Your task to perform on an android device: Show me a list of home improvement items on the Home Depot website. Image 0: 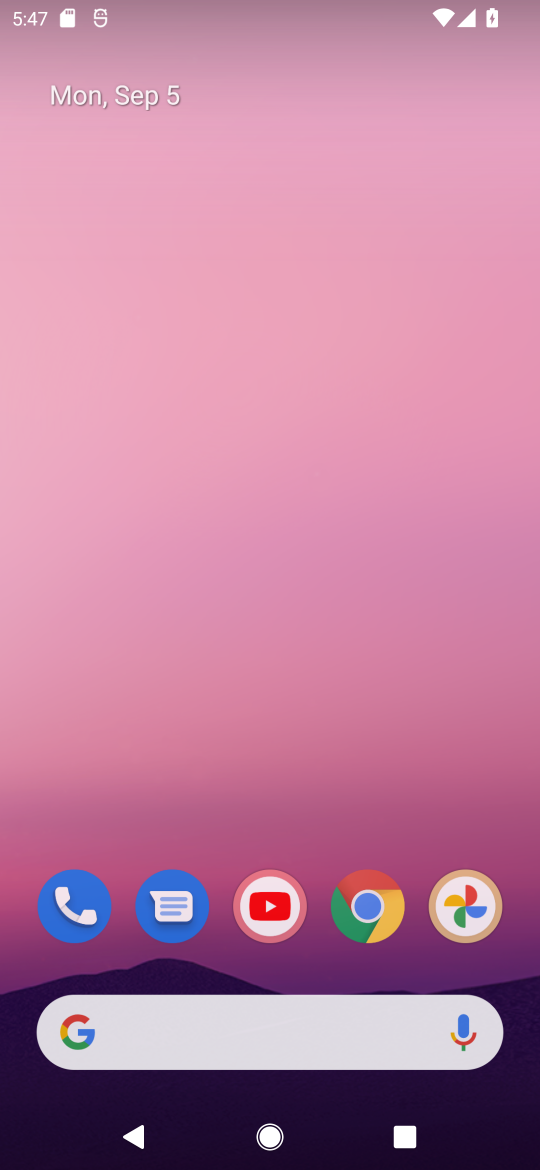
Step 0: press home button
Your task to perform on an android device: Show me a list of home improvement items on the Home Depot website. Image 1: 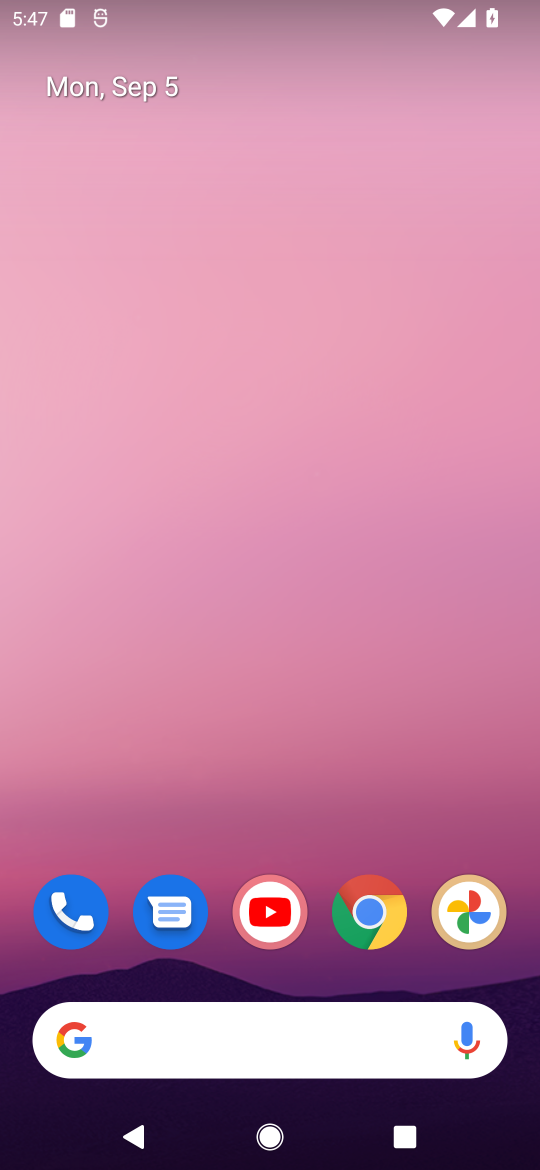
Step 1: click (362, 906)
Your task to perform on an android device: Show me a list of home improvement items on the Home Depot website. Image 2: 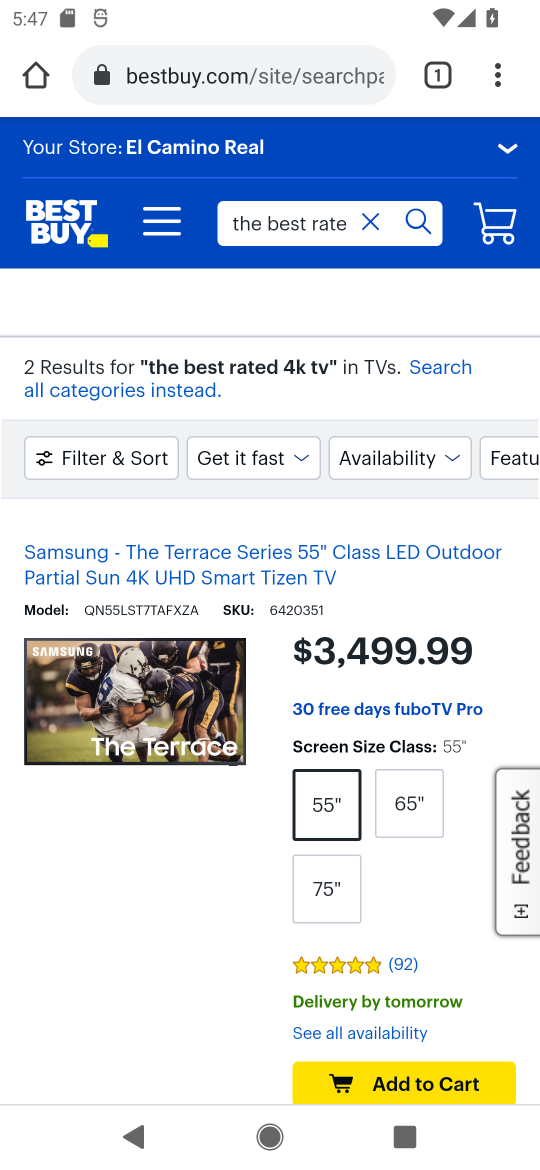
Step 2: click (276, 77)
Your task to perform on an android device: Show me a list of home improvement items on the Home Depot website. Image 3: 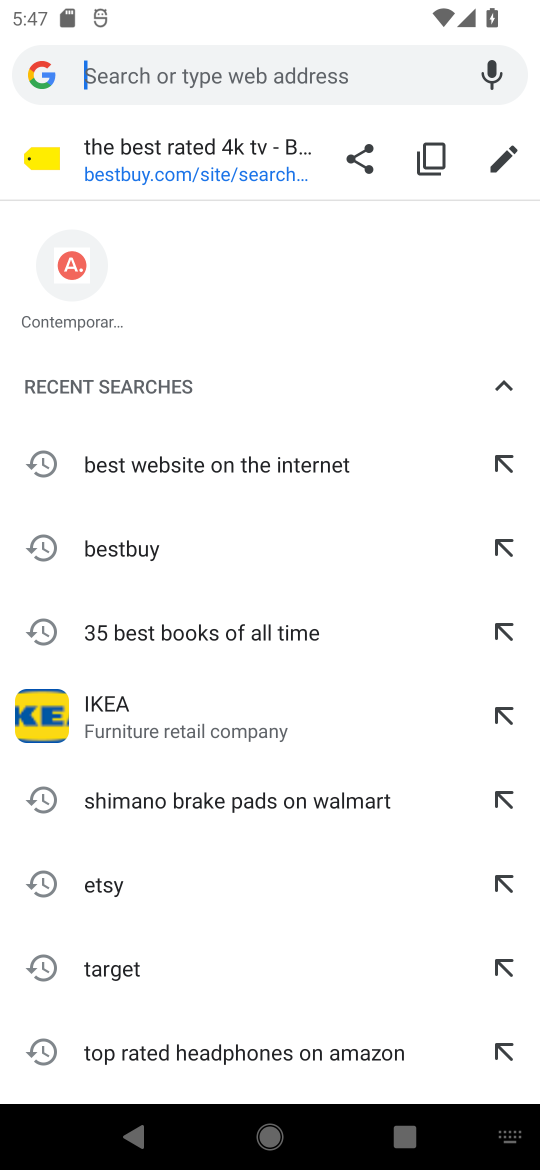
Step 3: type "the home depot"
Your task to perform on an android device: Show me a list of home improvement items on the Home Depot website. Image 4: 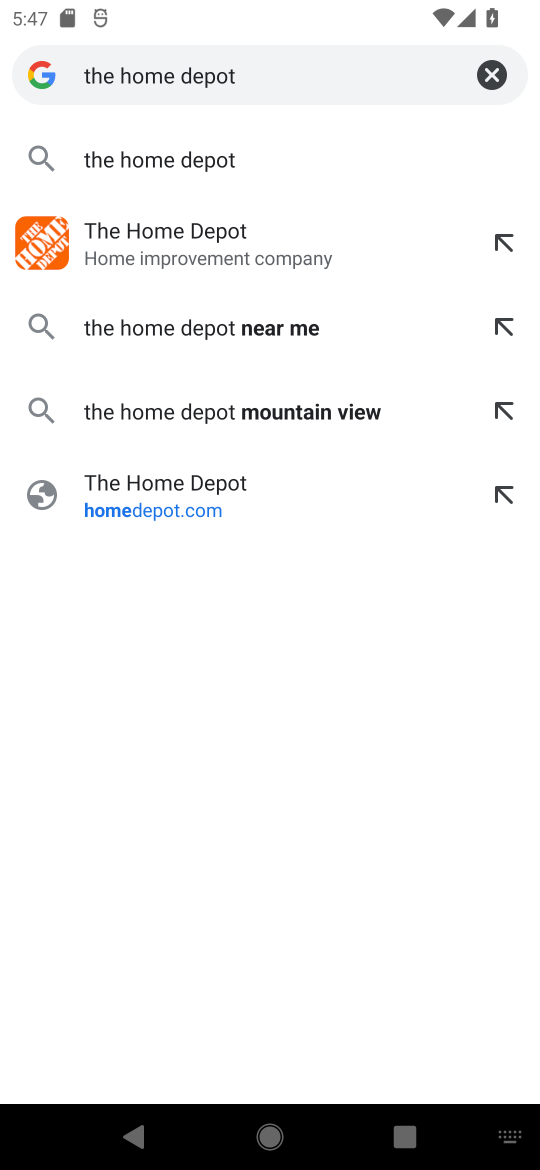
Step 4: click (211, 152)
Your task to perform on an android device: Show me a list of home improvement items on the Home Depot website. Image 5: 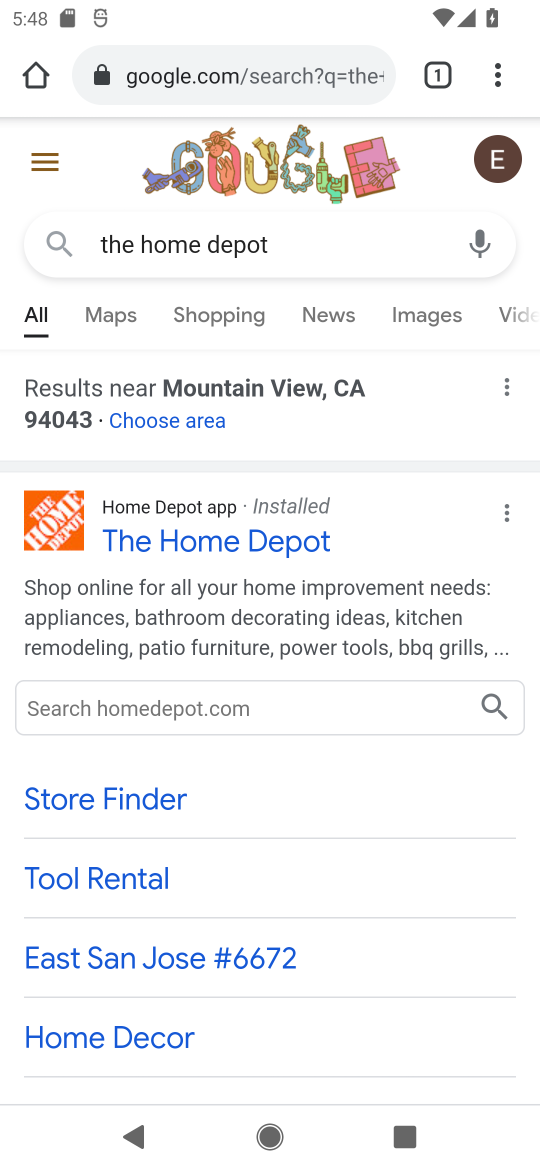
Step 5: click (295, 545)
Your task to perform on an android device: Show me a list of home improvement items on the Home Depot website. Image 6: 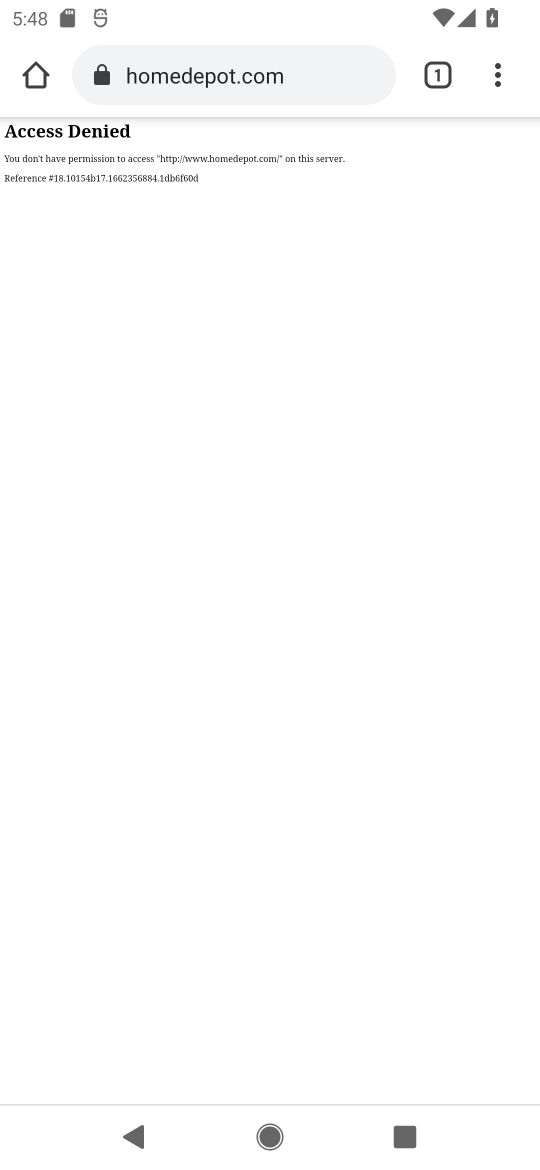
Step 6: task complete